Your task to perform on an android device: Show the shopping cart on target. Image 0: 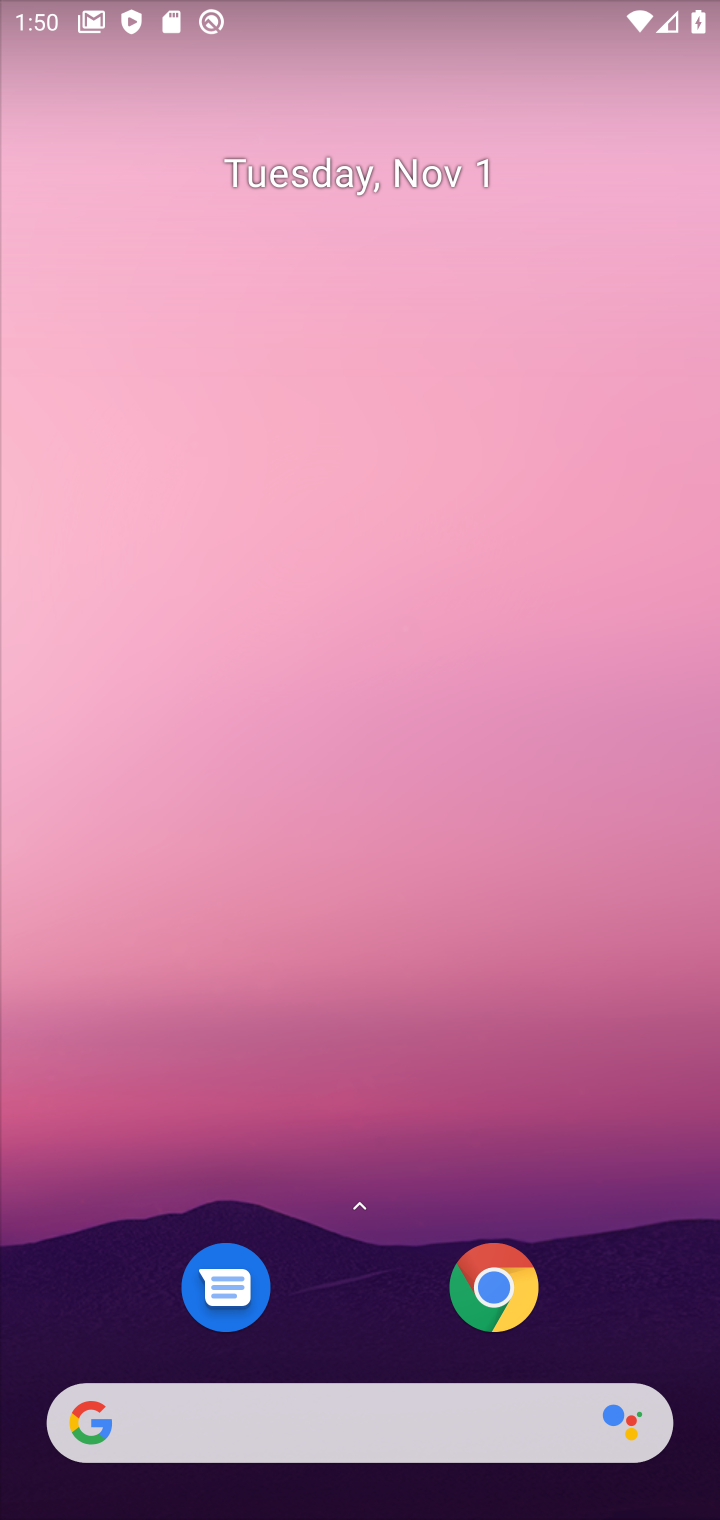
Step 0: drag from (365, 1148) to (449, 339)
Your task to perform on an android device: Show the shopping cart on target. Image 1: 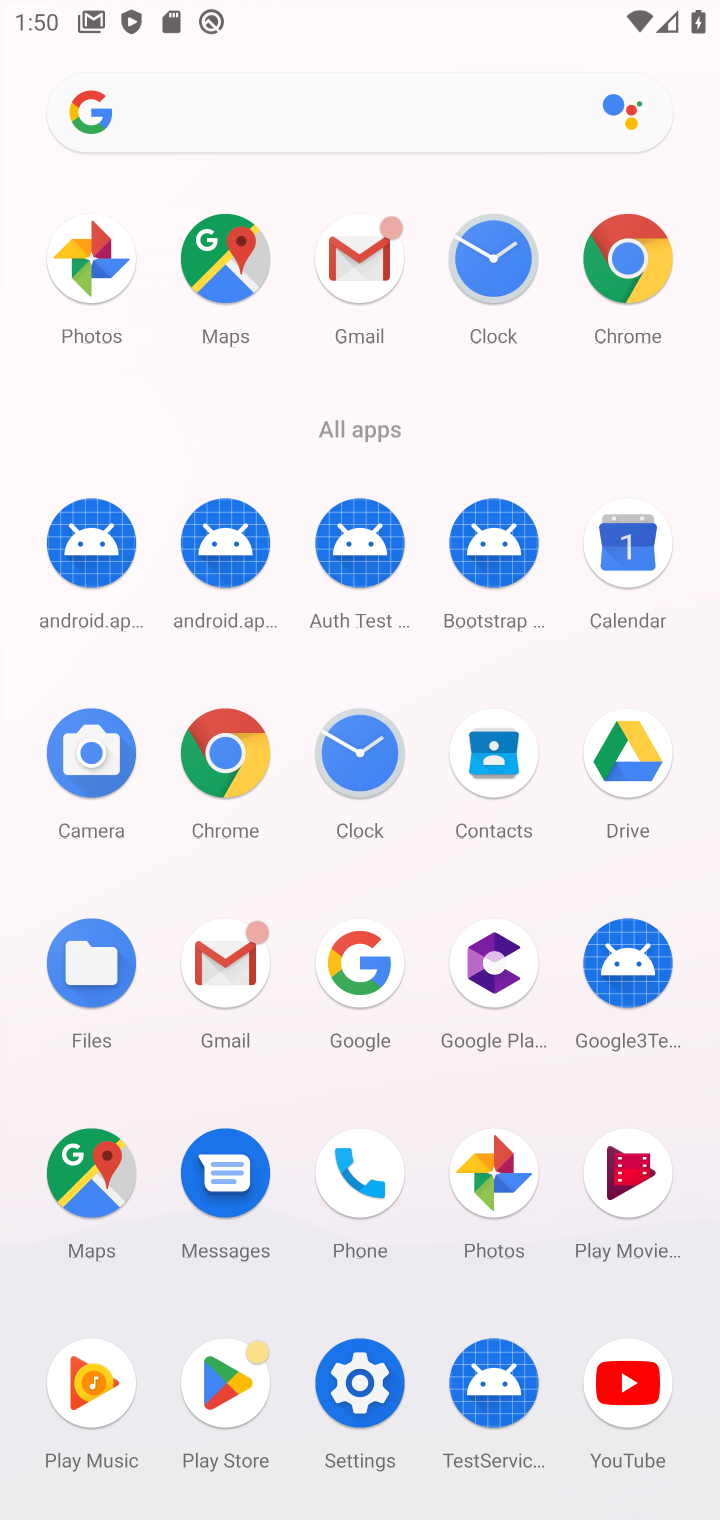
Step 1: click (212, 752)
Your task to perform on an android device: Show the shopping cart on target. Image 2: 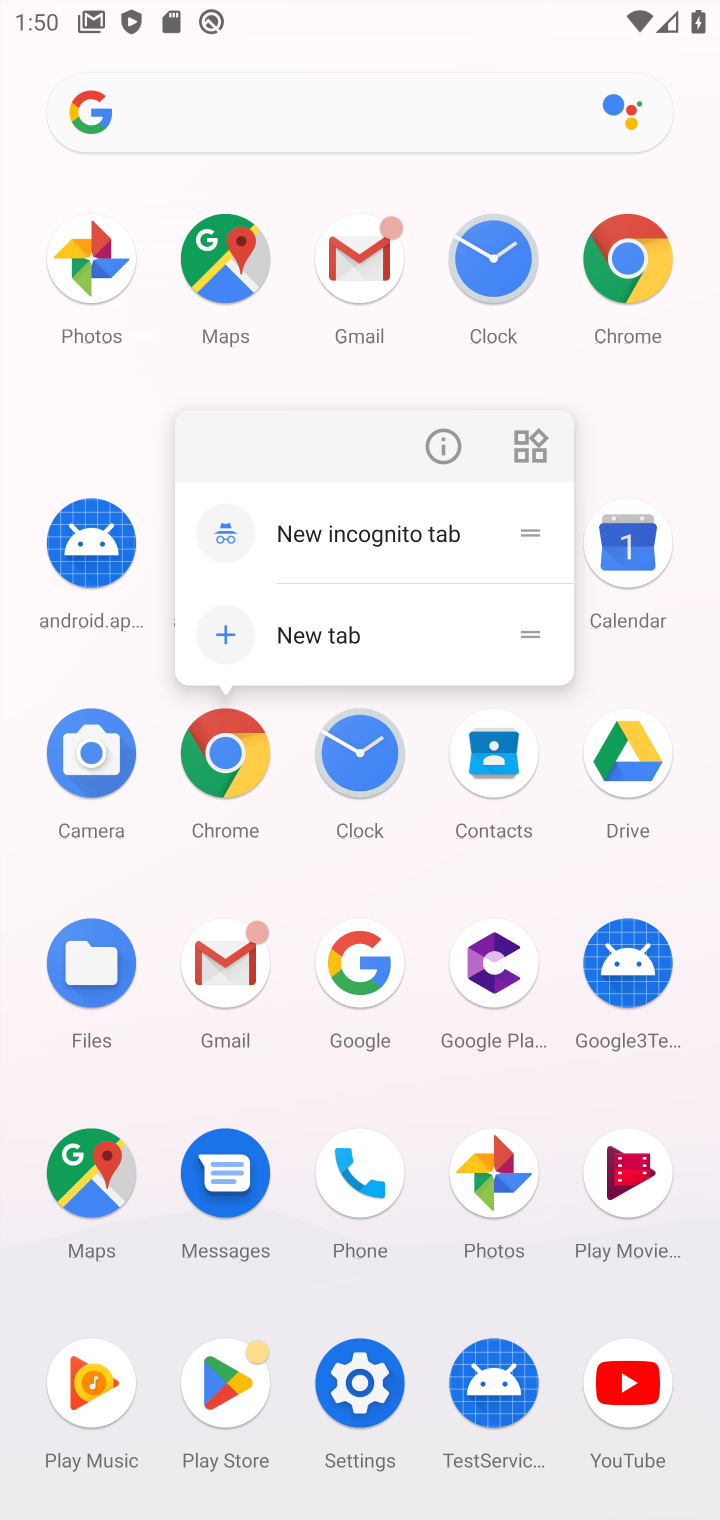
Step 2: click (228, 754)
Your task to perform on an android device: Show the shopping cart on target. Image 3: 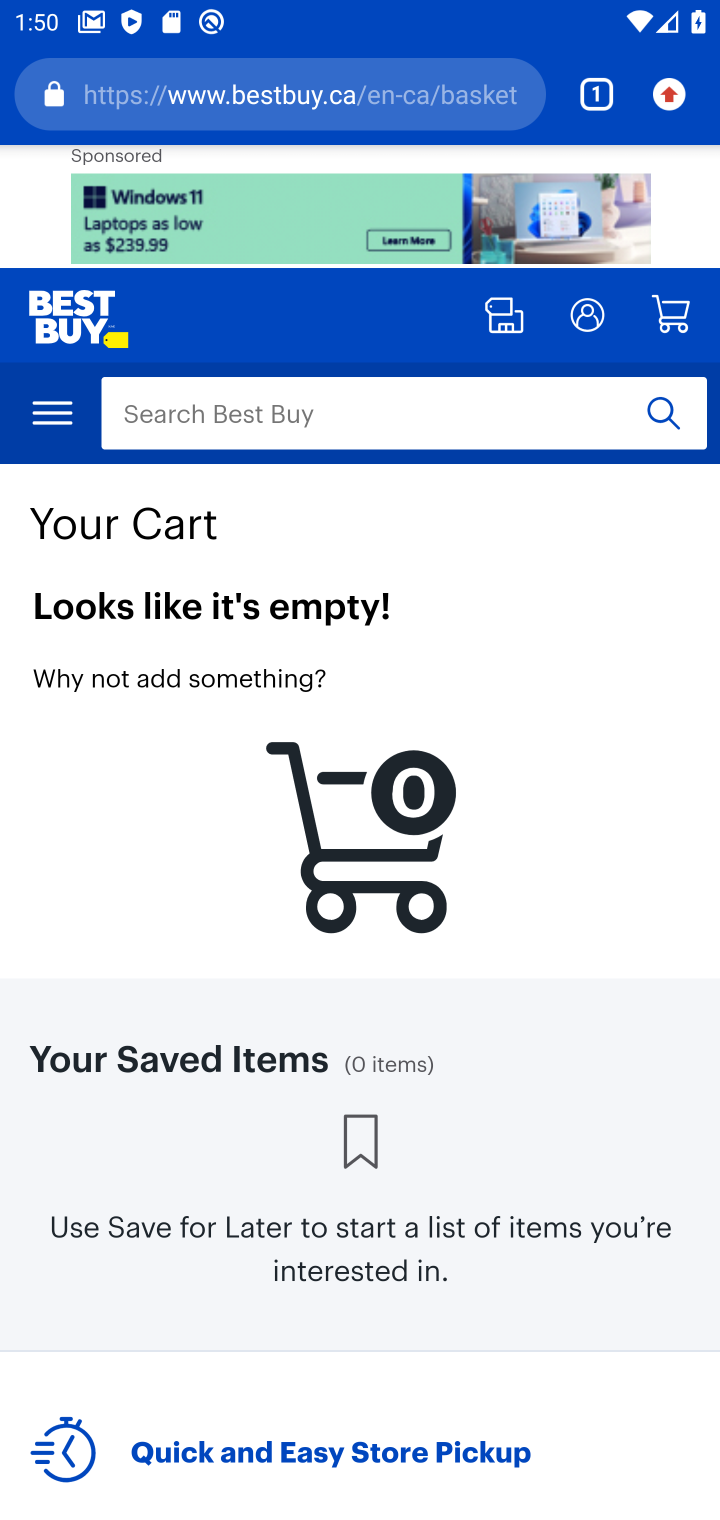
Step 3: click (412, 104)
Your task to perform on an android device: Show the shopping cart on target. Image 4: 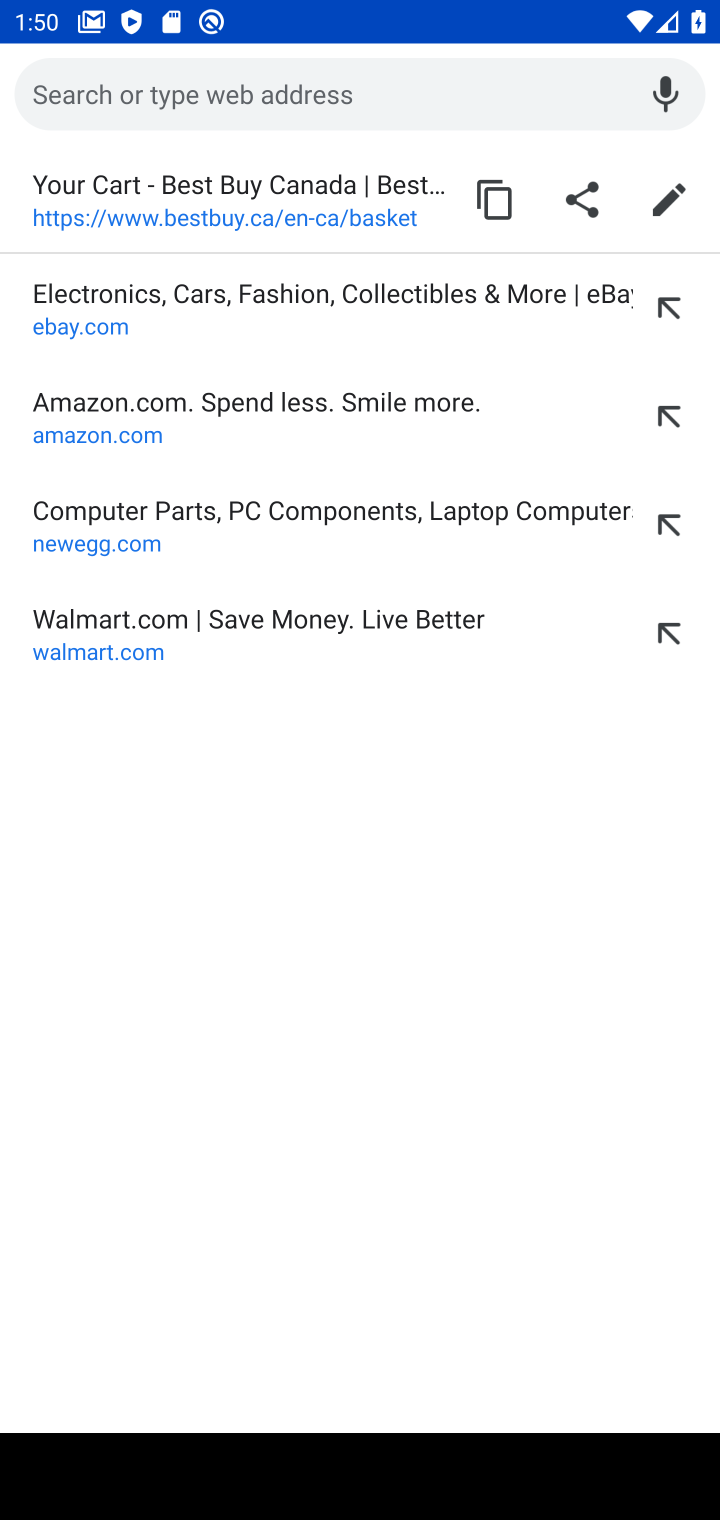
Step 4: type "target.com"
Your task to perform on an android device: Show the shopping cart on target. Image 5: 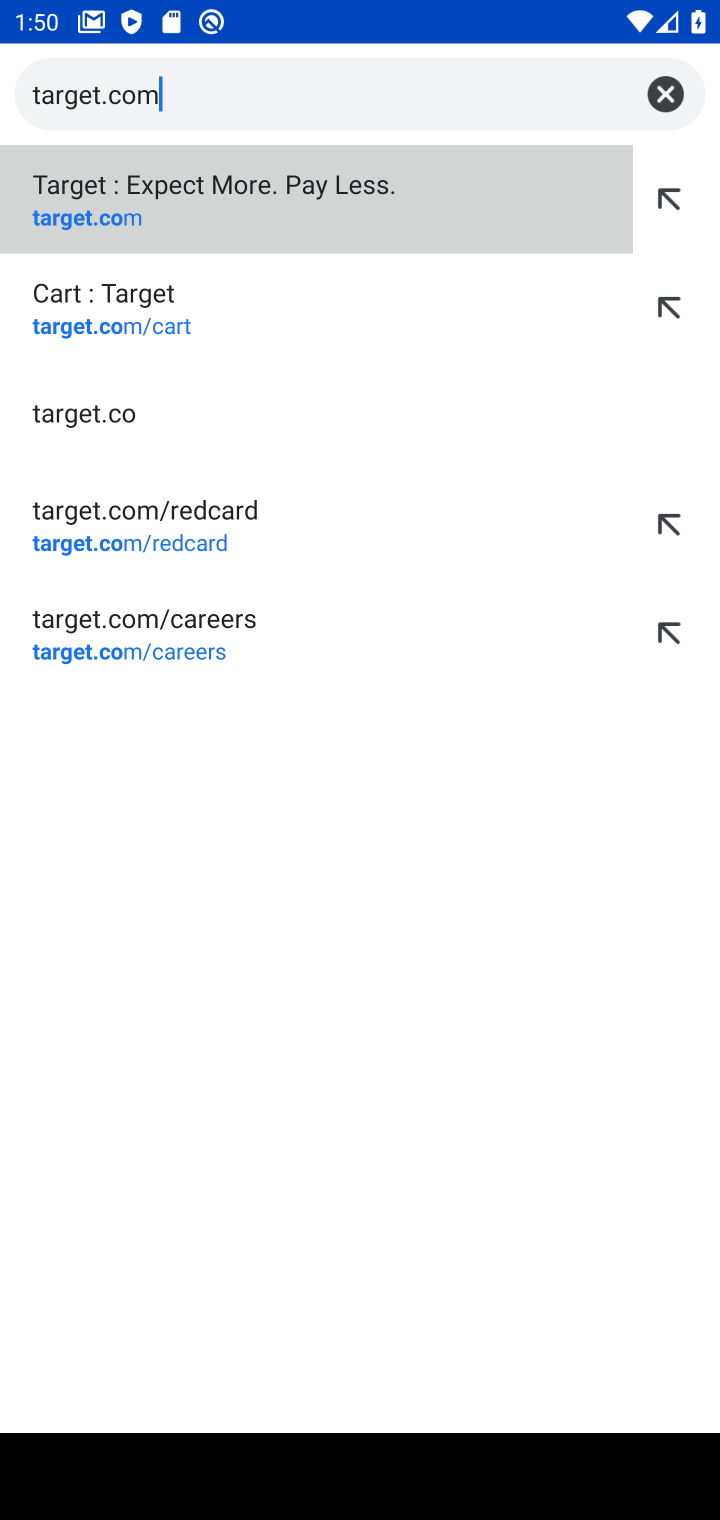
Step 5: press enter
Your task to perform on an android device: Show the shopping cart on target. Image 6: 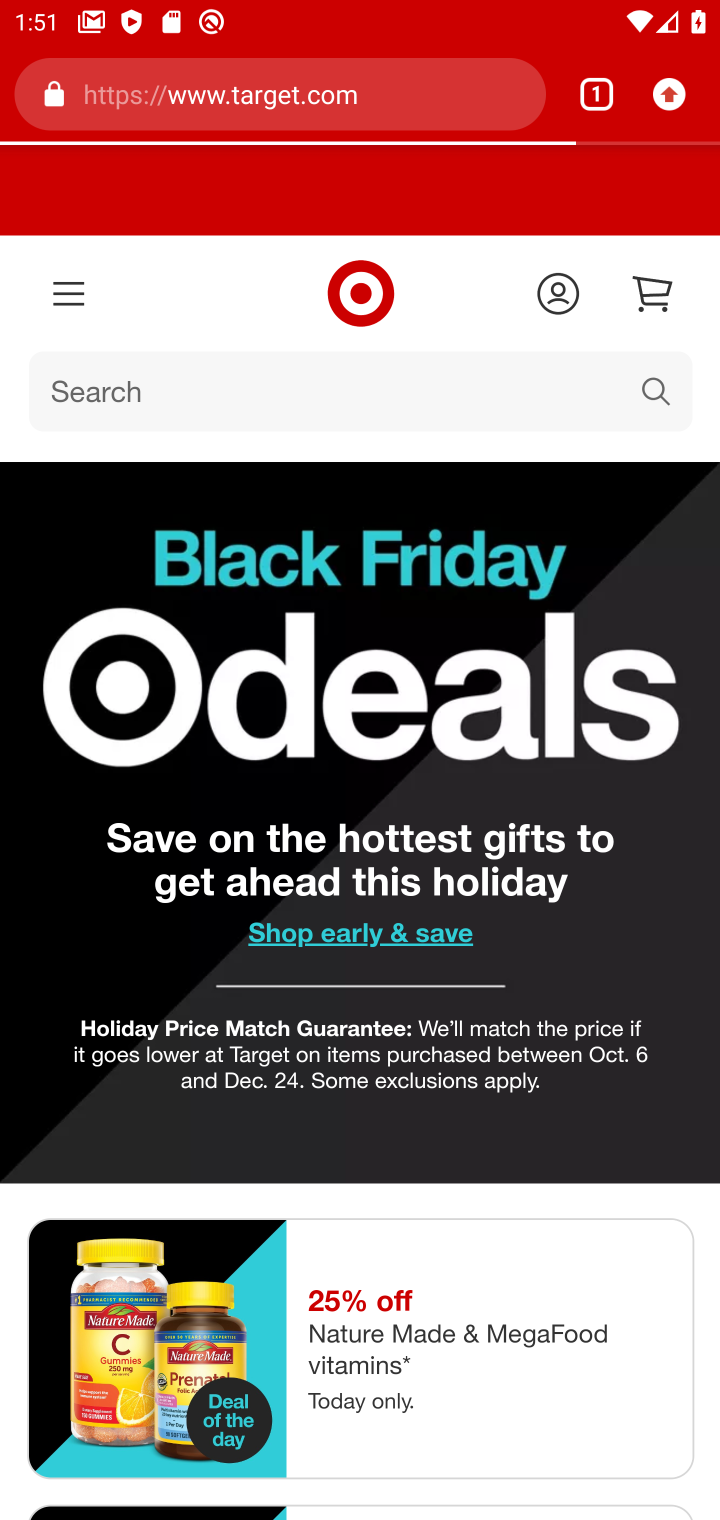
Step 6: click (637, 282)
Your task to perform on an android device: Show the shopping cart on target. Image 7: 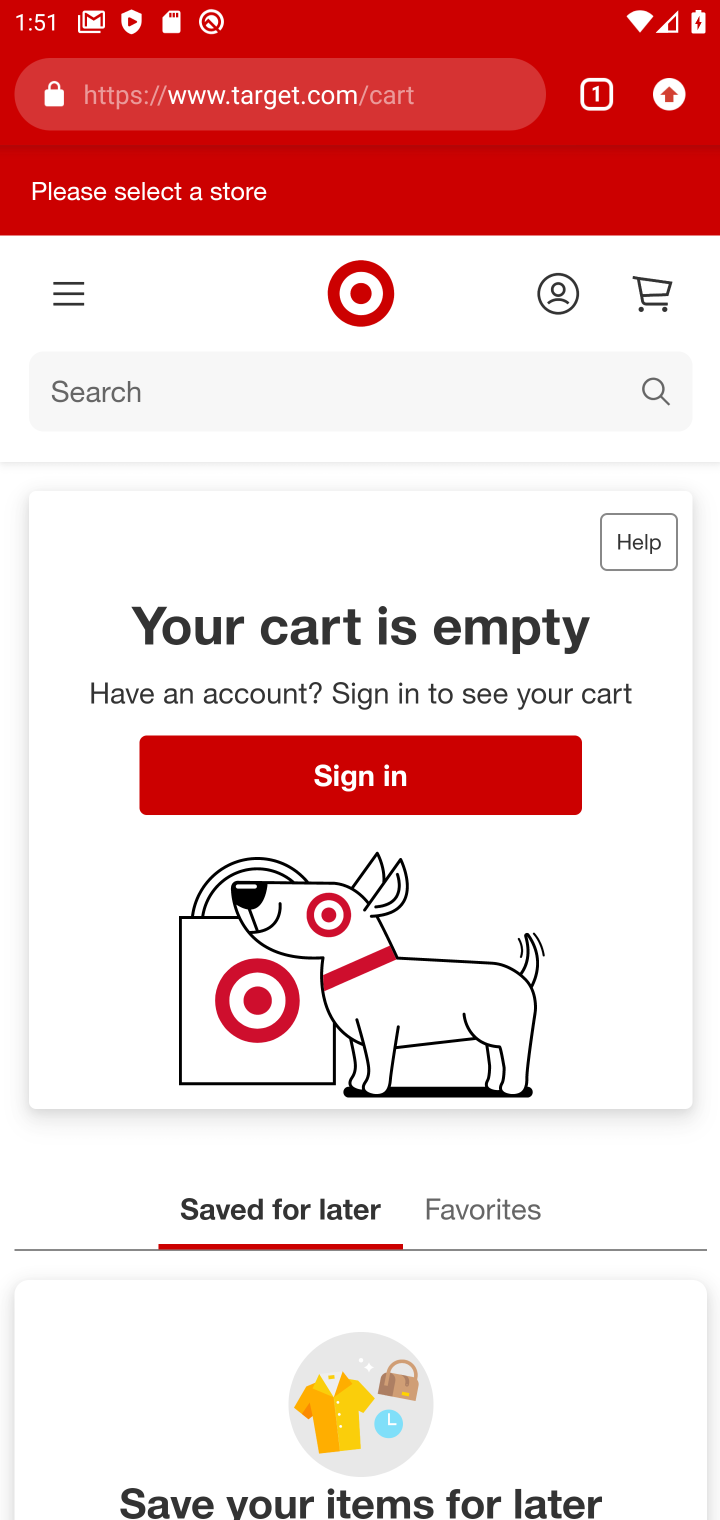
Step 7: task complete